Your task to perform on an android device: add a contact Image 0: 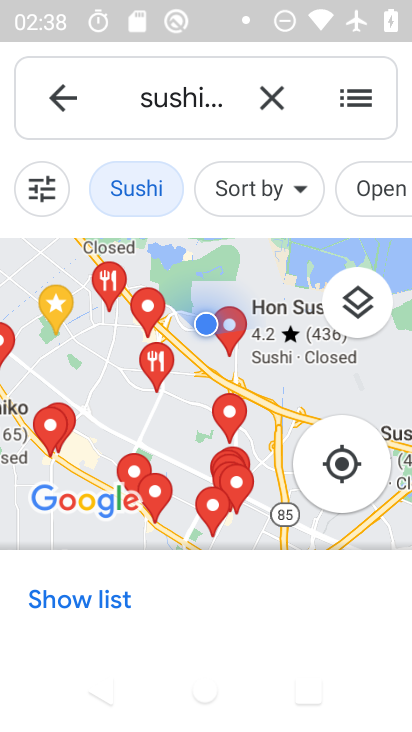
Step 0: press home button
Your task to perform on an android device: add a contact Image 1: 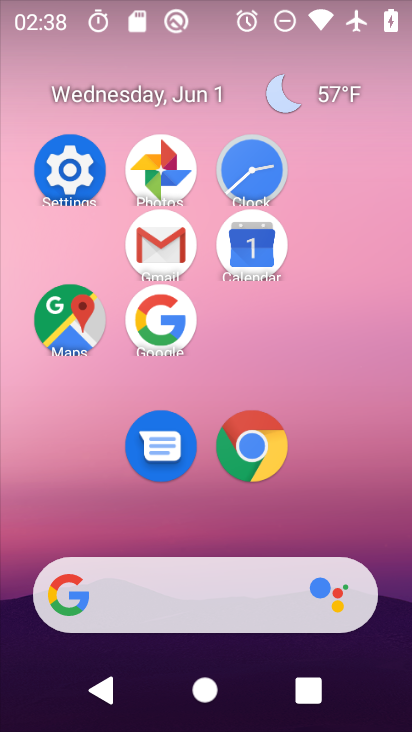
Step 1: drag from (287, 488) to (325, 154)
Your task to perform on an android device: add a contact Image 2: 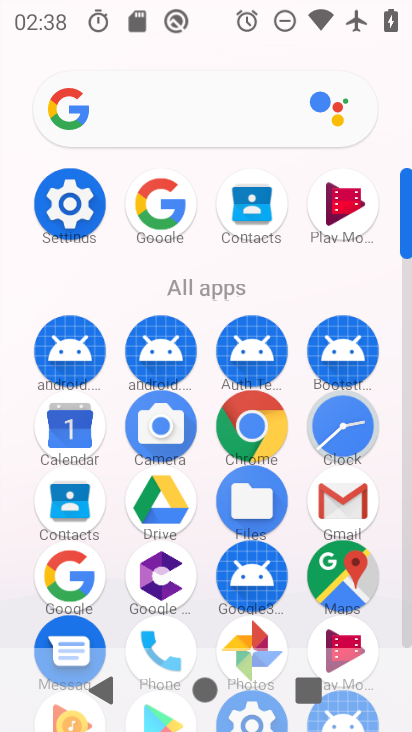
Step 2: click (241, 211)
Your task to perform on an android device: add a contact Image 3: 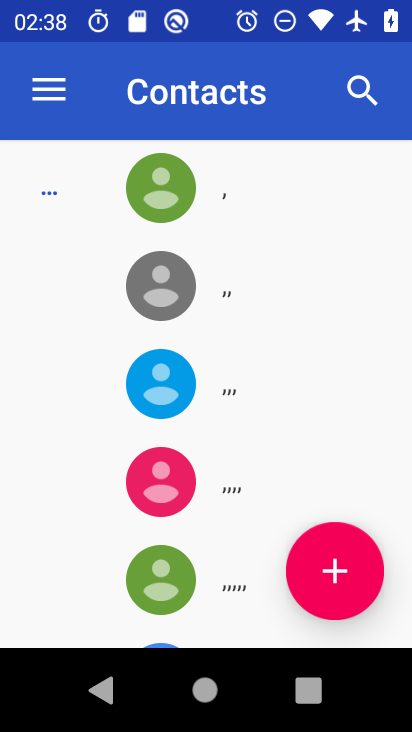
Step 3: click (323, 546)
Your task to perform on an android device: add a contact Image 4: 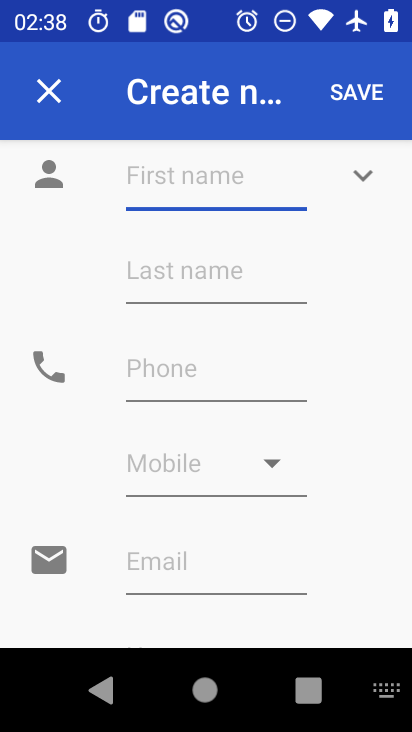
Step 4: type "jjk"
Your task to perform on an android device: add a contact Image 5: 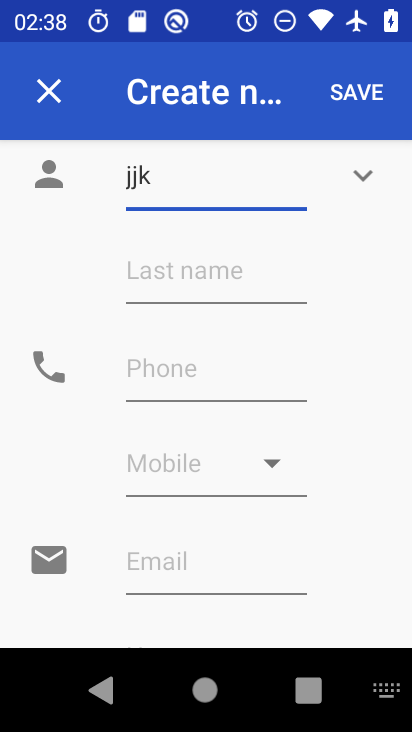
Step 5: click (198, 385)
Your task to perform on an android device: add a contact Image 6: 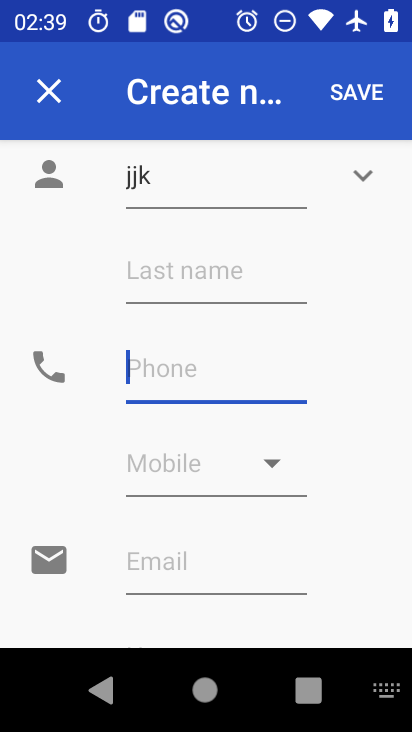
Step 6: type "9988776600"
Your task to perform on an android device: add a contact Image 7: 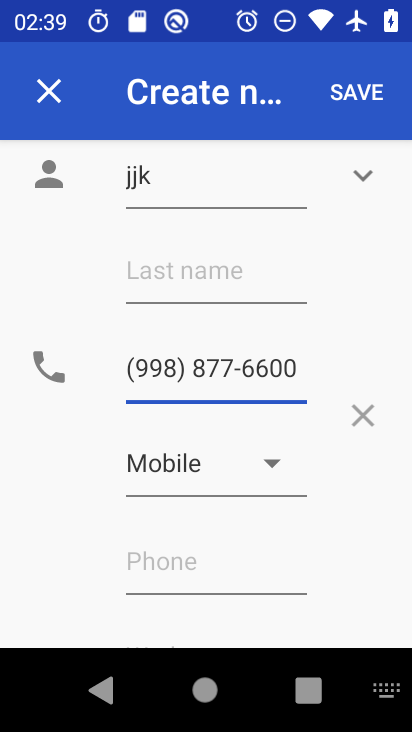
Step 7: click (369, 95)
Your task to perform on an android device: add a contact Image 8: 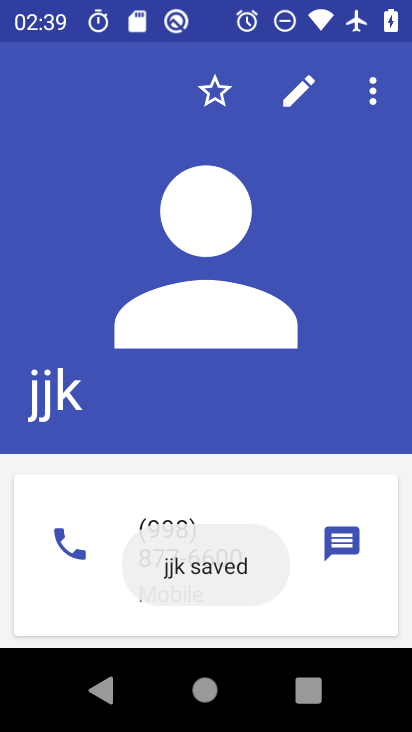
Step 8: task complete